Your task to perform on an android device: toggle improve location accuracy Image 0: 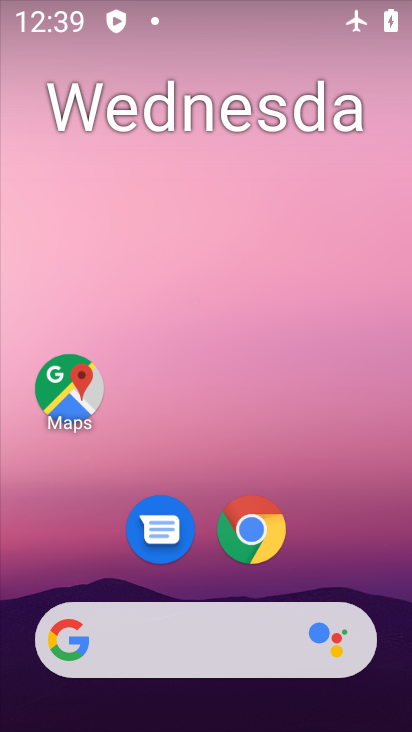
Step 0: drag from (210, 716) to (203, 109)
Your task to perform on an android device: toggle improve location accuracy Image 1: 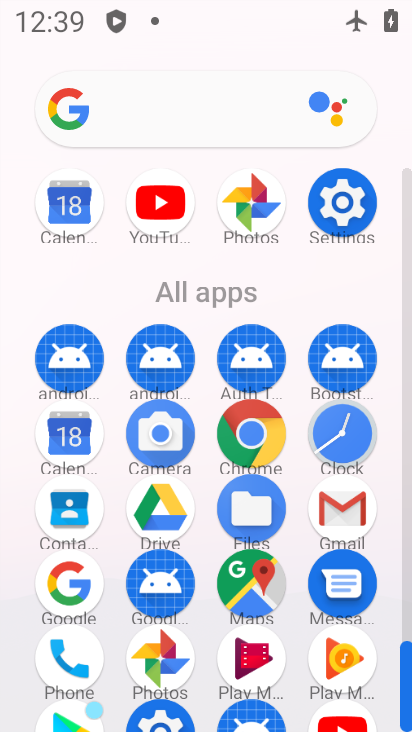
Step 1: click (342, 195)
Your task to perform on an android device: toggle improve location accuracy Image 2: 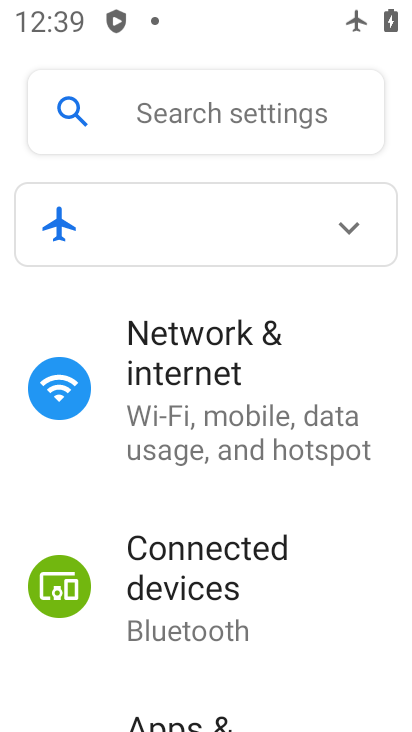
Step 2: drag from (236, 642) to (235, 347)
Your task to perform on an android device: toggle improve location accuracy Image 3: 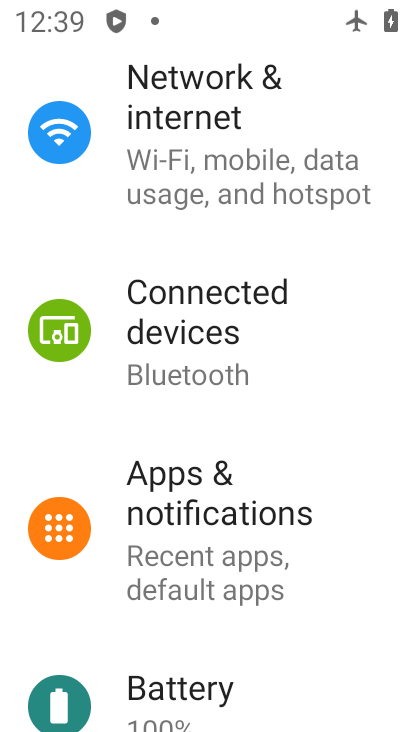
Step 3: drag from (247, 643) to (237, 368)
Your task to perform on an android device: toggle improve location accuracy Image 4: 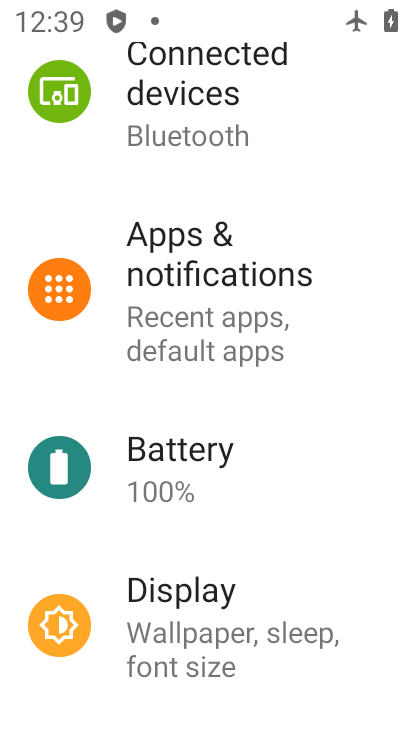
Step 4: drag from (230, 677) to (228, 268)
Your task to perform on an android device: toggle improve location accuracy Image 5: 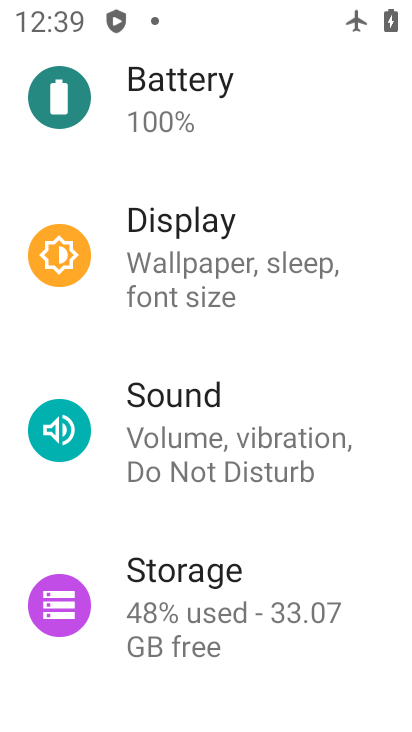
Step 5: drag from (251, 615) to (243, 275)
Your task to perform on an android device: toggle improve location accuracy Image 6: 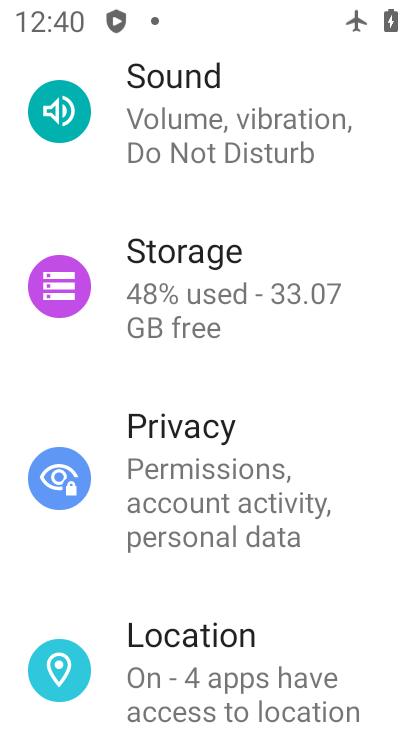
Step 6: click (237, 660)
Your task to perform on an android device: toggle improve location accuracy Image 7: 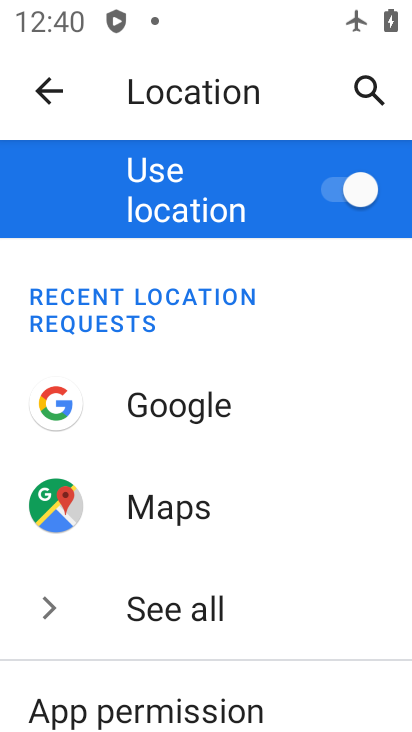
Step 7: drag from (250, 683) to (246, 269)
Your task to perform on an android device: toggle improve location accuracy Image 8: 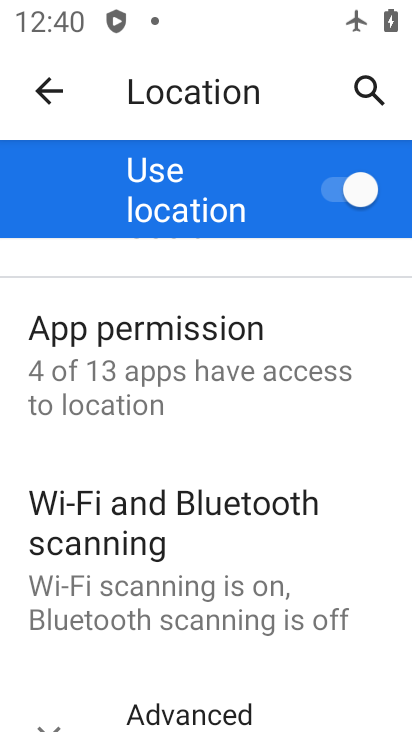
Step 8: drag from (256, 702) to (239, 388)
Your task to perform on an android device: toggle improve location accuracy Image 9: 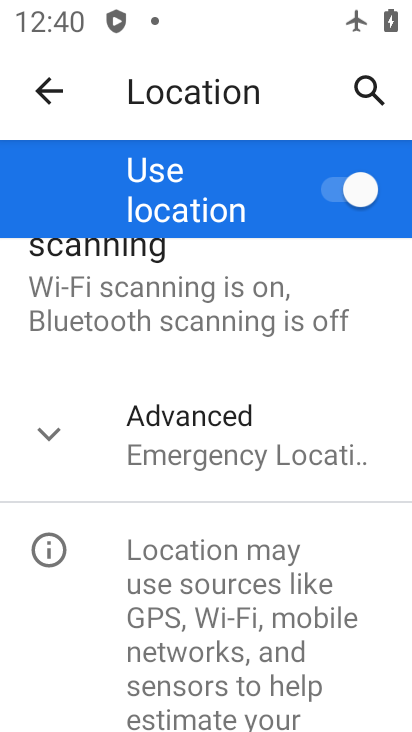
Step 9: click (230, 430)
Your task to perform on an android device: toggle improve location accuracy Image 10: 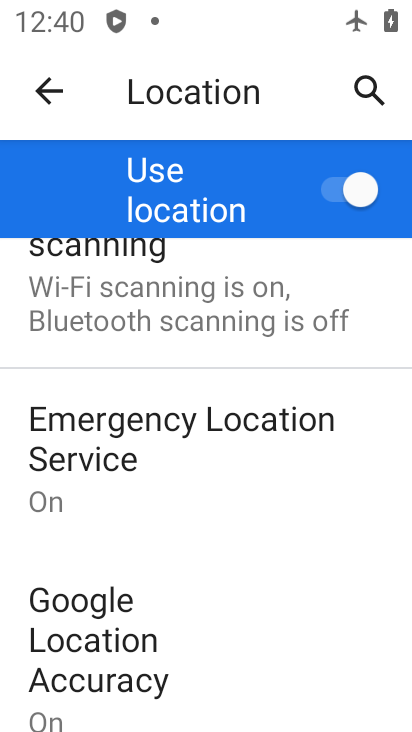
Step 10: click (76, 643)
Your task to perform on an android device: toggle improve location accuracy Image 11: 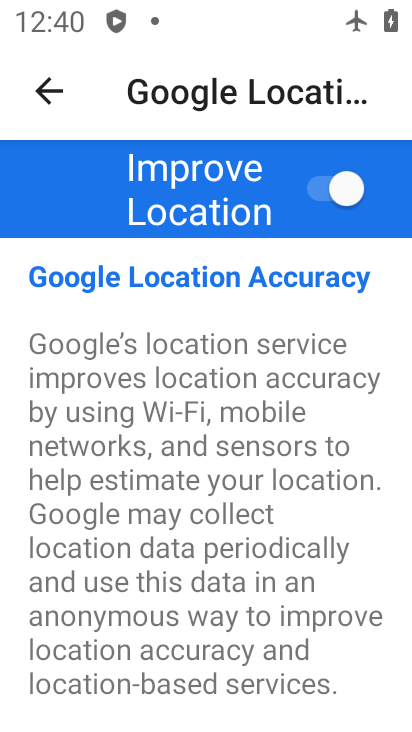
Step 11: task complete